Your task to perform on an android device: Open ESPN.com Image 0: 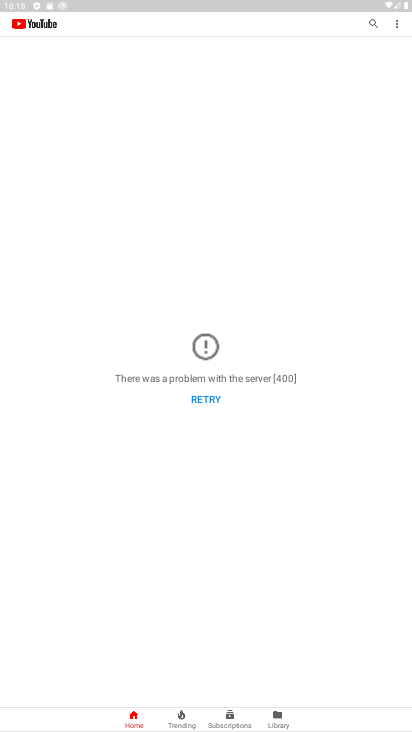
Step 0: press home button
Your task to perform on an android device: Open ESPN.com Image 1: 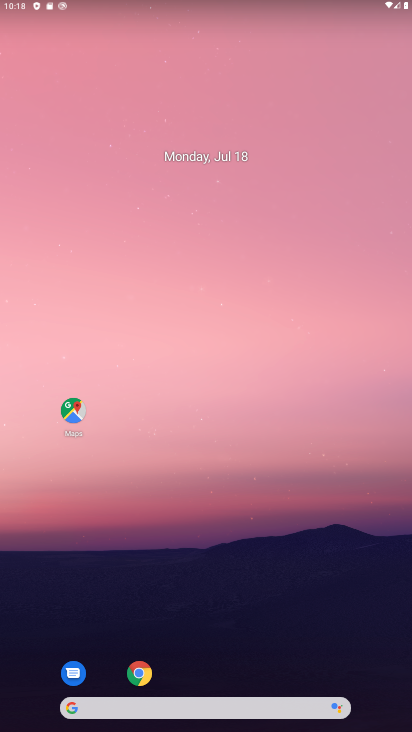
Step 1: drag from (250, 599) to (182, 78)
Your task to perform on an android device: Open ESPN.com Image 2: 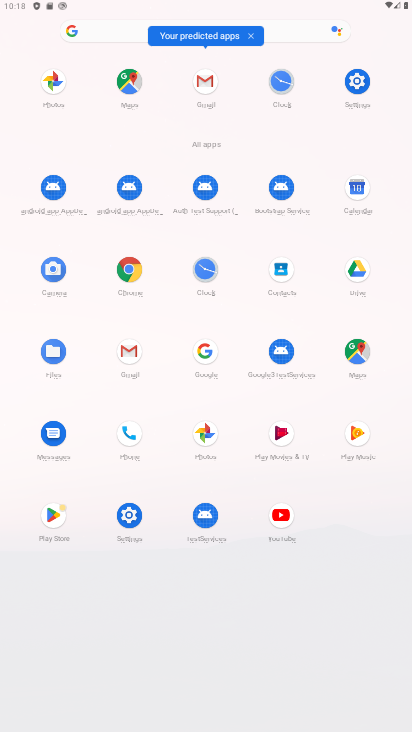
Step 2: click (129, 276)
Your task to perform on an android device: Open ESPN.com Image 3: 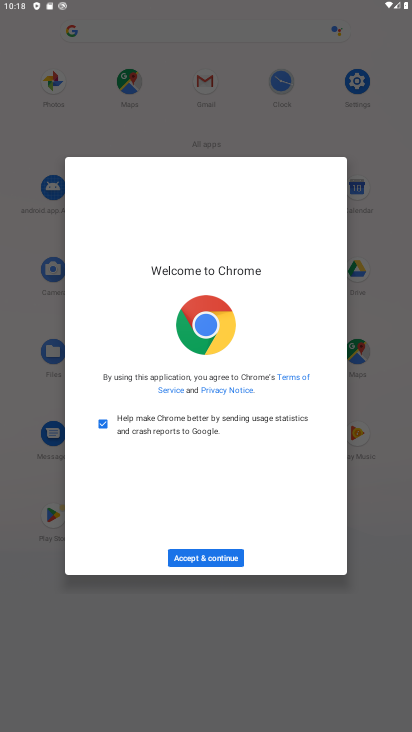
Step 3: click (207, 556)
Your task to perform on an android device: Open ESPN.com Image 4: 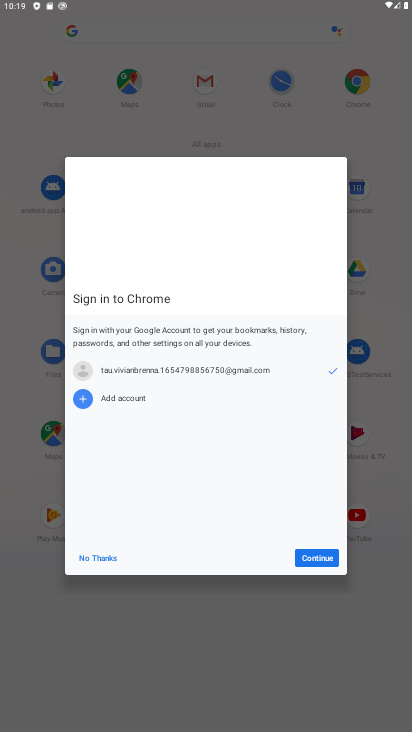
Step 4: click (318, 557)
Your task to perform on an android device: Open ESPN.com Image 5: 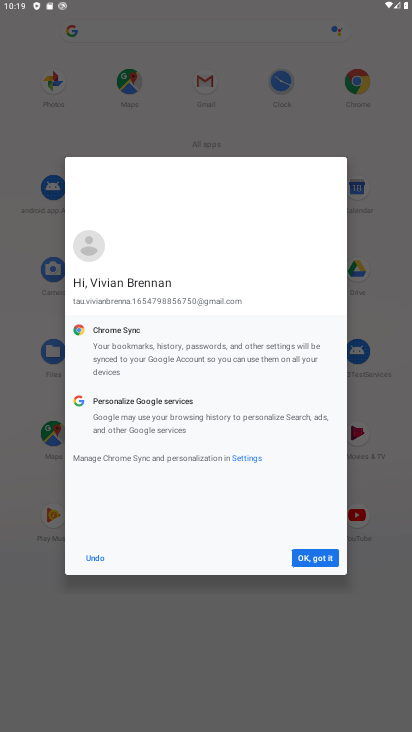
Step 5: click (318, 557)
Your task to perform on an android device: Open ESPN.com Image 6: 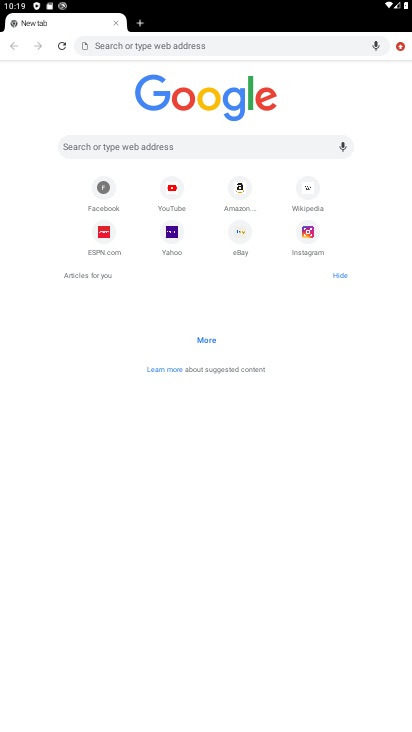
Step 6: click (108, 230)
Your task to perform on an android device: Open ESPN.com Image 7: 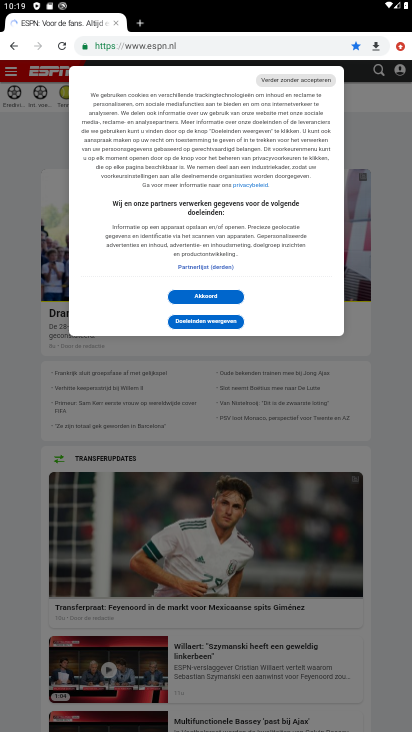
Step 7: task complete